Your task to perform on an android device: empty trash in the gmail app Image 0: 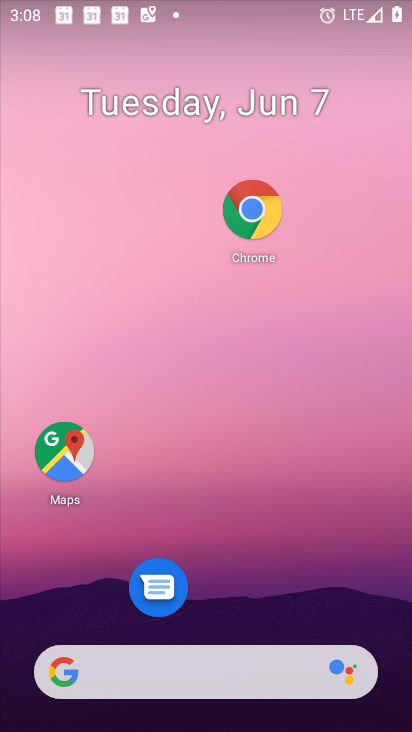
Step 0: drag from (257, 584) to (314, 79)
Your task to perform on an android device: empty trash in the gmail app Image 1: 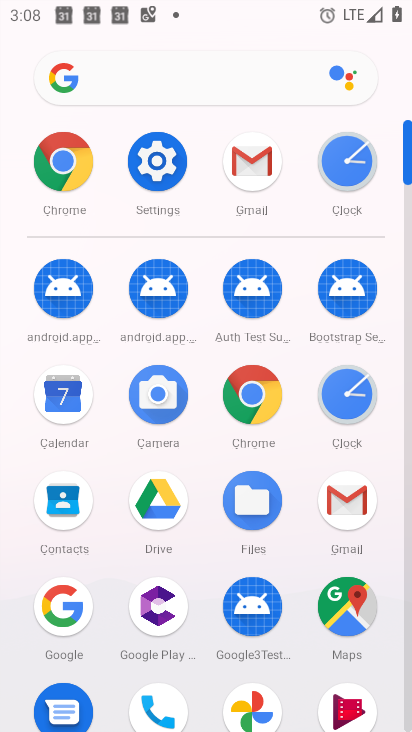
Step 1: click (360, 513)
Your task to perform on an android device: empty trash in the gmail app Image 2: 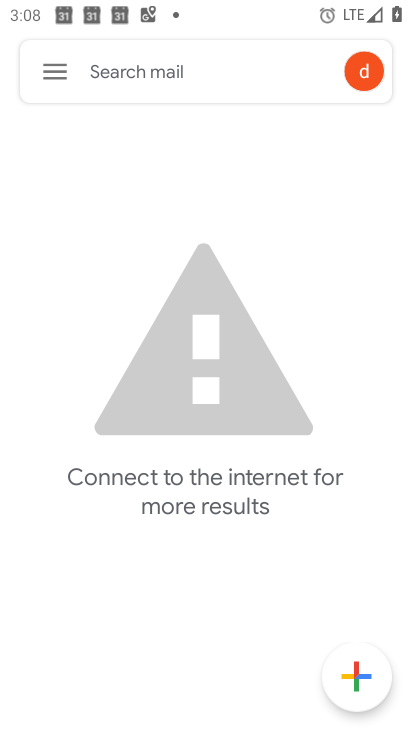
Step 2: click (59, 76)
Your task to perform on an android device: empty trash in the gmail app Image 3: 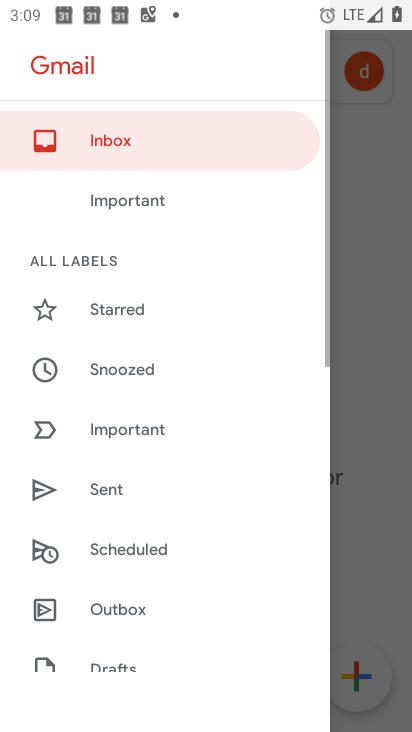
Step 3: drag from (159, 496) to (179, 190)
Your task to perform on an android device: empty trash in the gmail app Image 4: 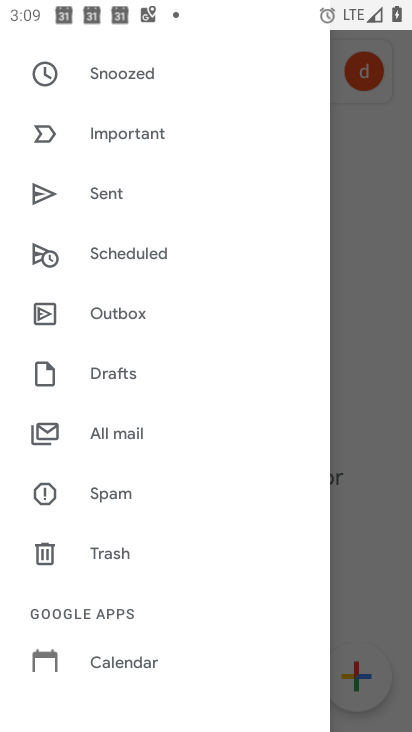
Step 4: click (111, 552)
Your task to perform on an android device: empty trash in the gmail app Image 5: 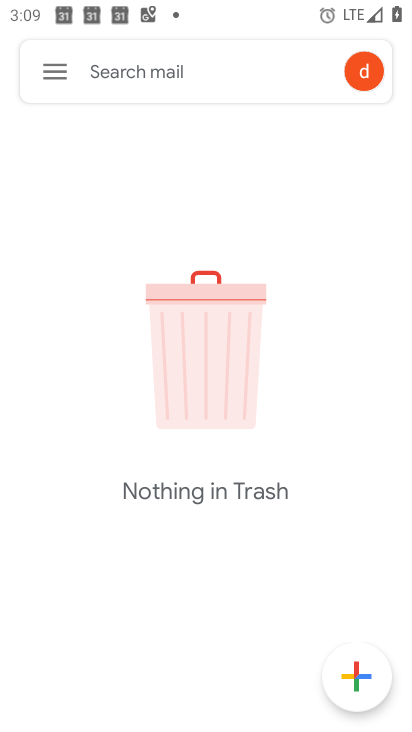
Step 5: task complete